Your task to perform on an android device: Search for the best websites on the internet Image 0: 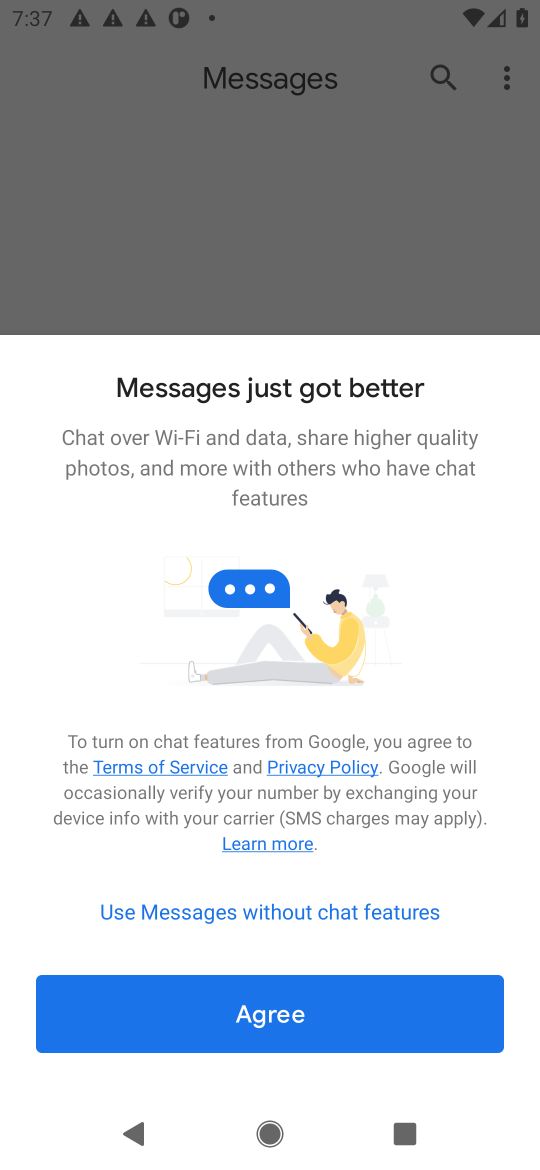
Step 0: press home button
Your task to perform on an android device: Search for the best websites on the internet Image 1: 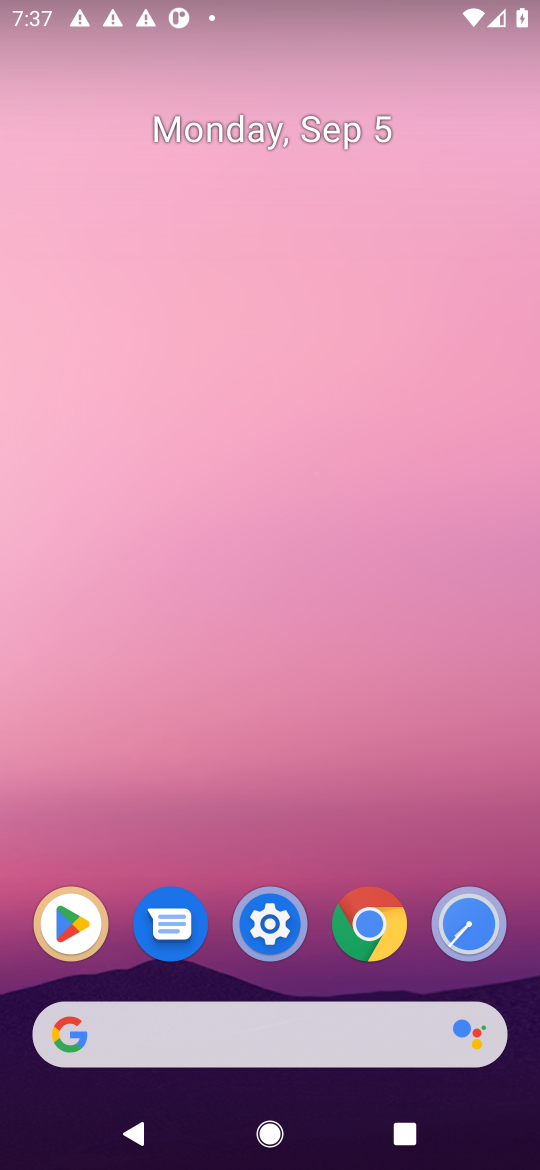
Step 1: click (373, 1029)
Your task to perform on an android device: Search for the best websites on the internet Image 2: 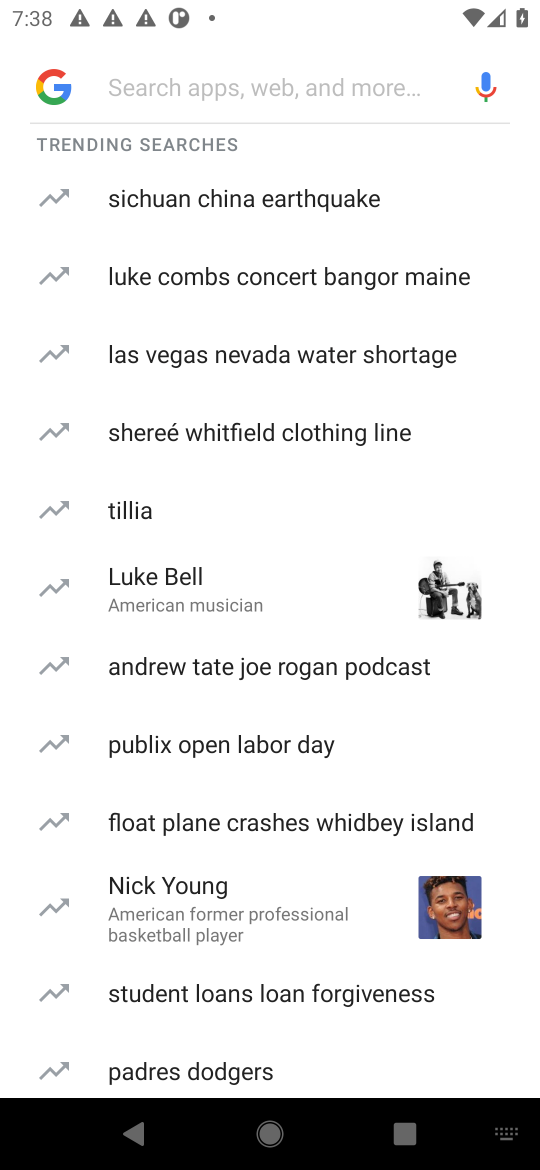
Step 2: type "best websites on the internet"
Your task to perform on an android device: Search for the best websites on the internet Image 3: 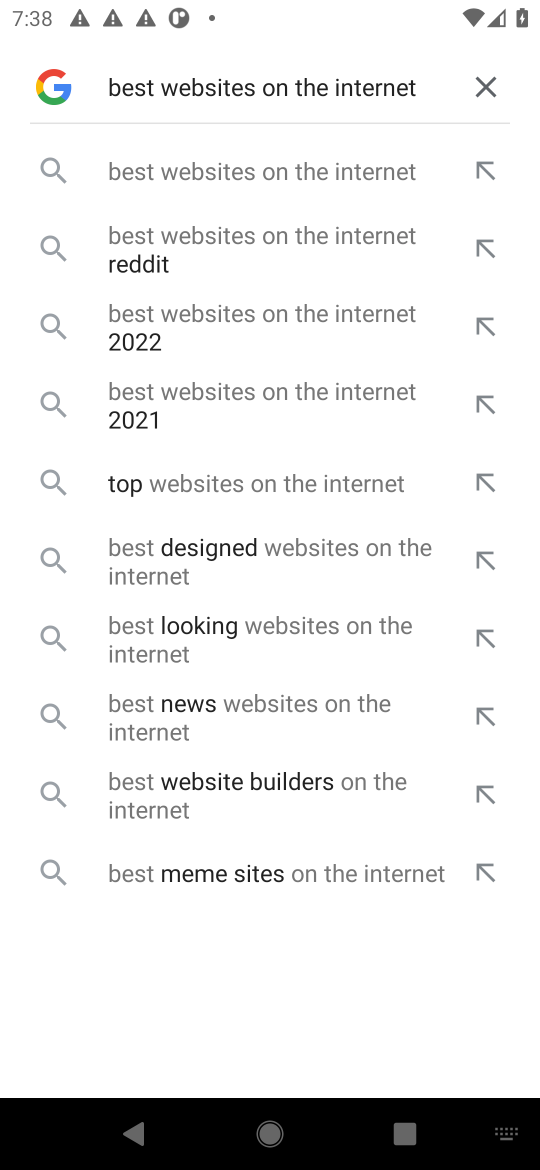
Step 3: press enter
Your task to perform on an android device: Search for the best websites on the internet Image 4: 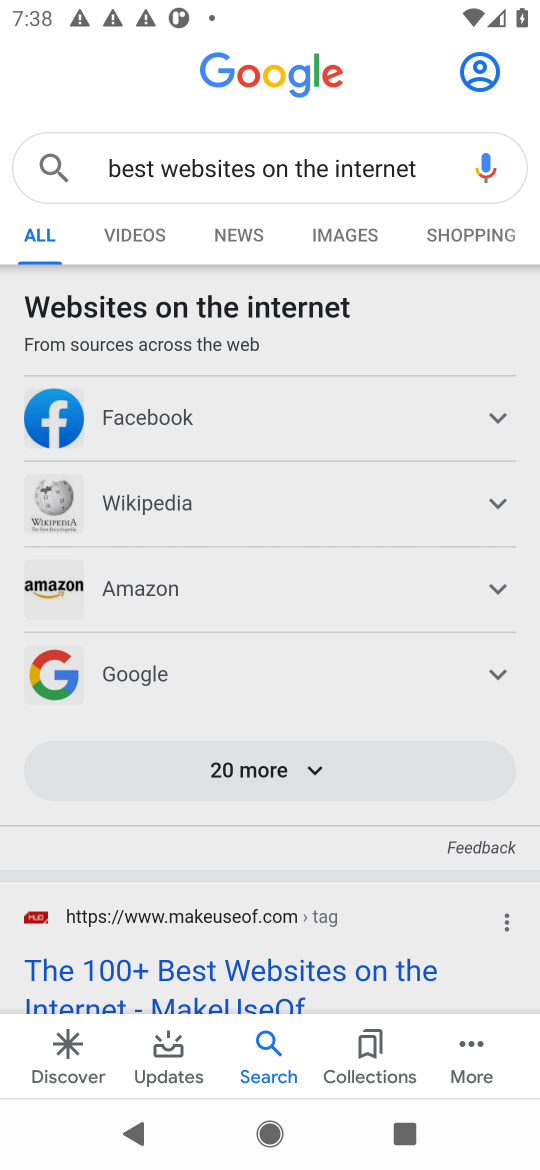
Step 4: task complete